Your task to perform on an android device: delete a single message in the gmail app Image 0: 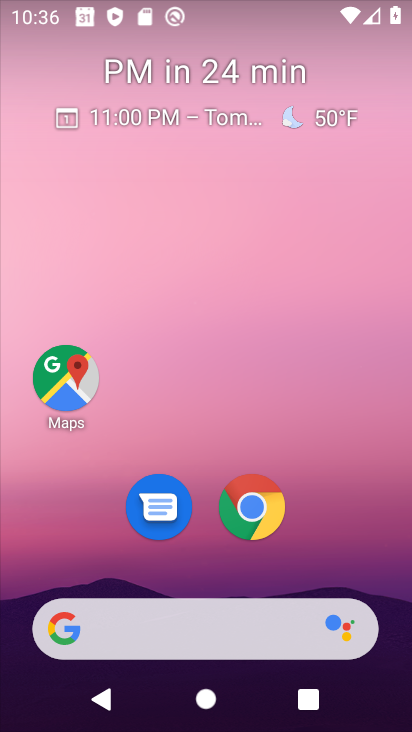
Step 0: drag from (304, 557) to (290, 37)
Your task to perform on an android device: delete a single message in the gmail app Image 1: 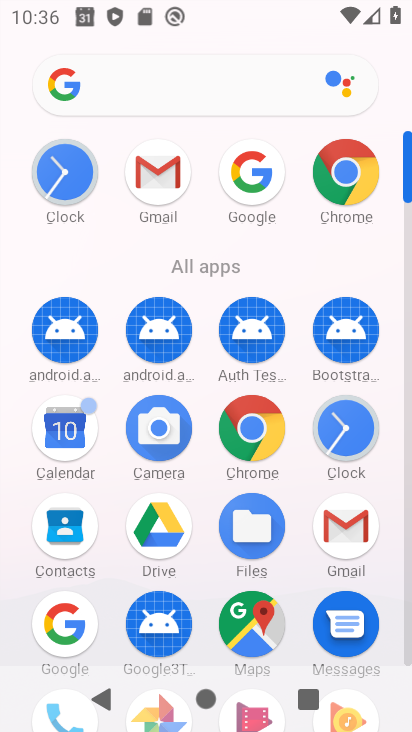
Step 1: click (170, 198)
Your task to perform on an android device: delete a single message in the gmail app Image 2: 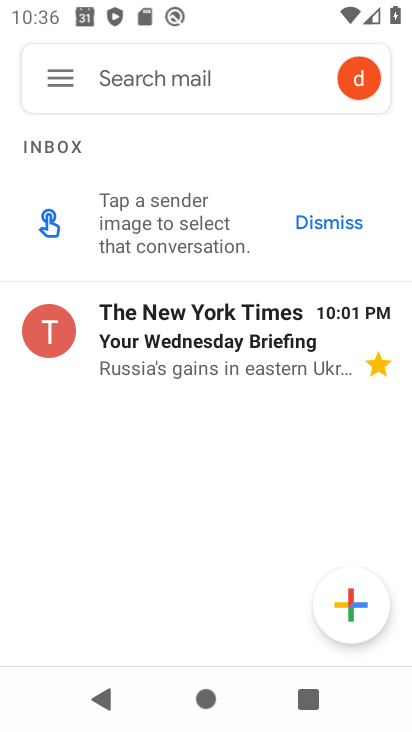
Step 2: click (317, 333)
Your task to perform on an android device: delete a single message in the gmail app Image 3: 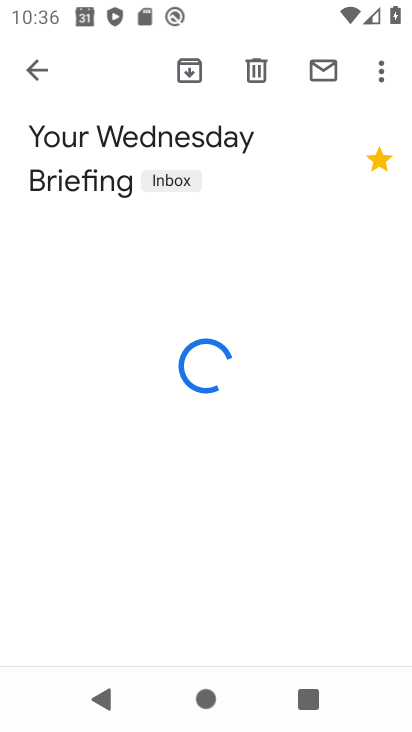
Step 3: click (385, 48)
Your task to perform on an android device: delete a single message in the gmail app Image 4: 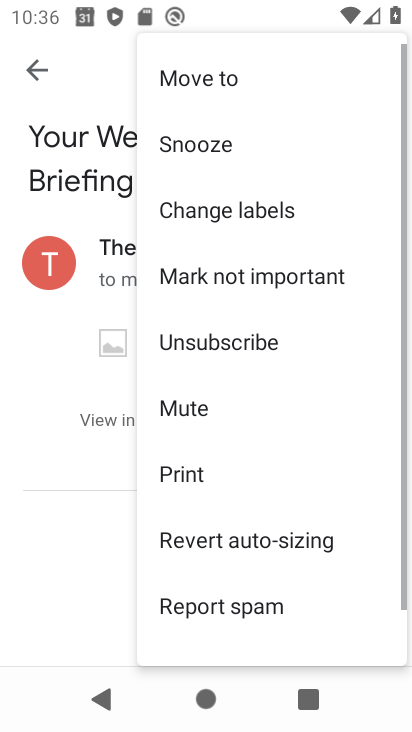
Step 4: drag from (293, 564) to (308, 199)
Your task to perform on an android device: delete a single message in the gmail app Image 5: 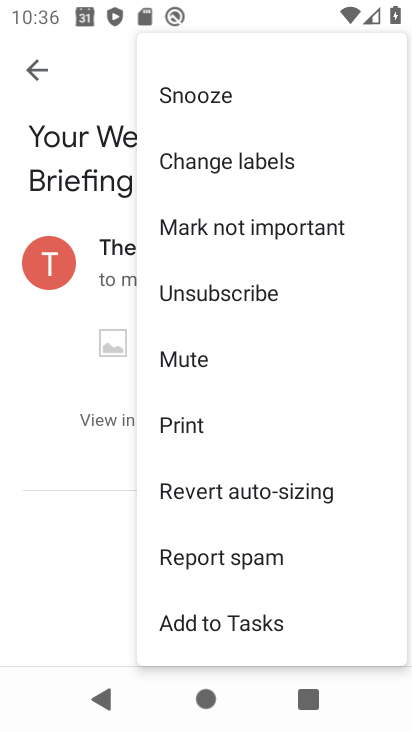
Step 5: drag from (316, 239) to (314, 596)
Your task to perform on an android device: delete a single message in the gmail app Image 6: 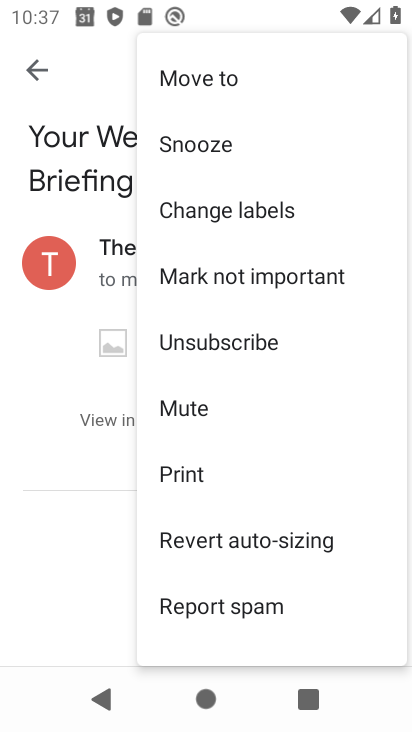
Step 6: click (43, 65)
Your task to perform on an android device: delete a single message in the gmail app Image 7: 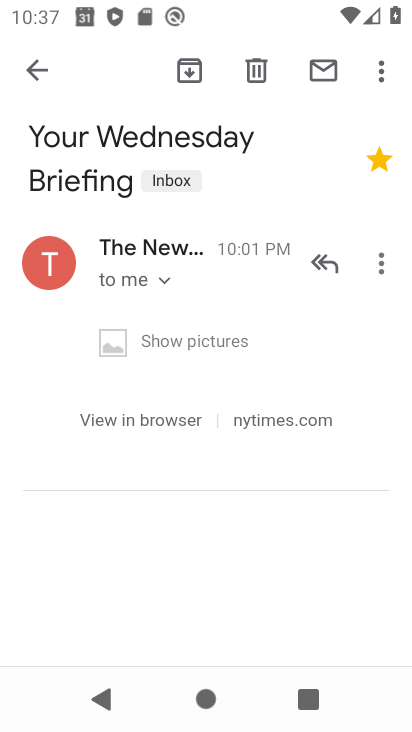
Step 7: click (247, 77)
Your task to perform on an android device: delete a single message in the gmail app Image 8: 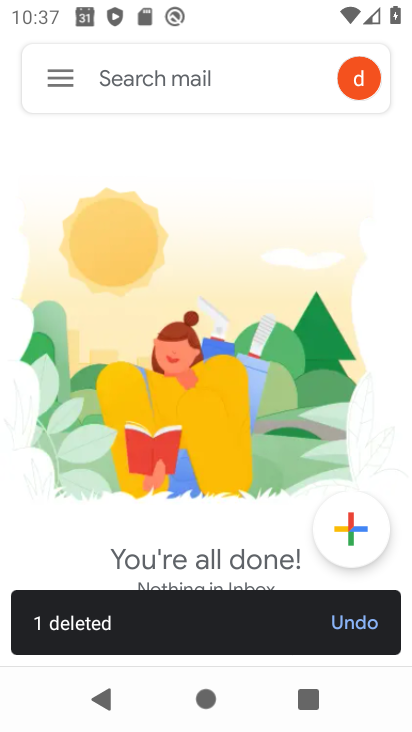
Step 8: task complete